Your task to perform on an android device: Open internet settings Image 0: 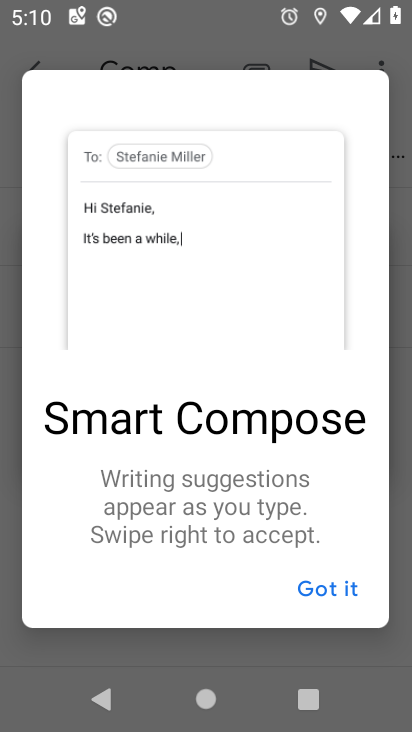
Step 0: press home button
Your task to perform on an android device: Open internet settings Image 1: 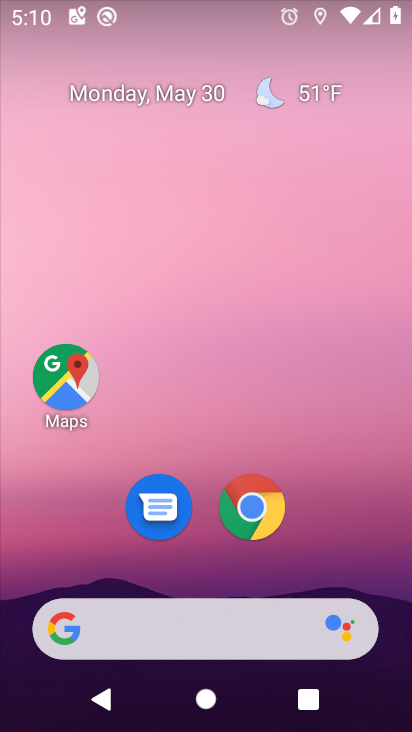
Step 1: drag from (399, 514) to (363, 191)
Your task to perform on an android device: Open internet settings Image 2: 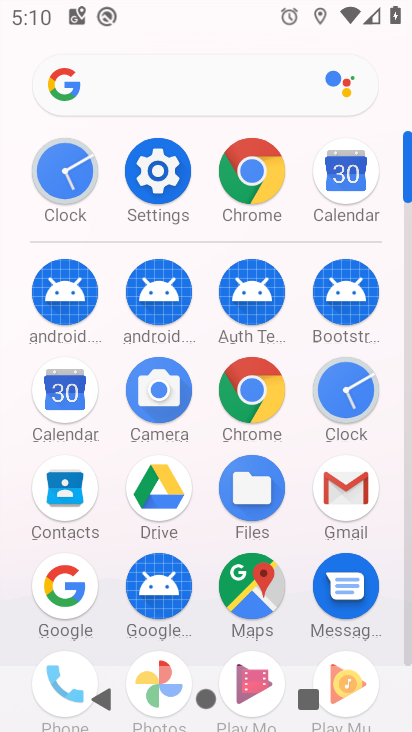
Step 2: click (172, 174)
Your task to perform on an android device: Open internet settings Image 3: 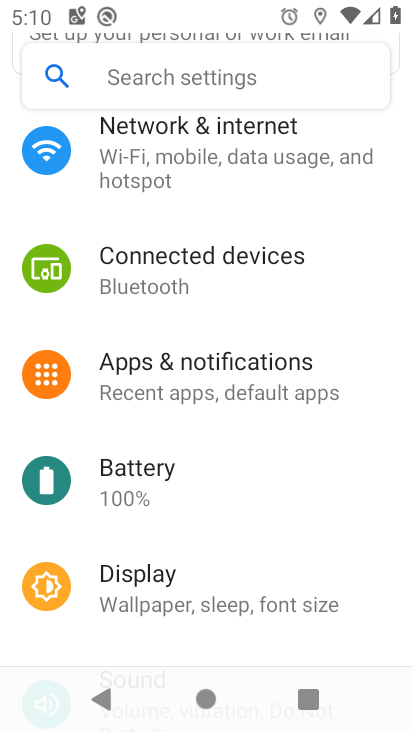
Step 3: drag from (172, 174) to (158, 708)
Your task to perform on an android device: Open internet settings Image 4: 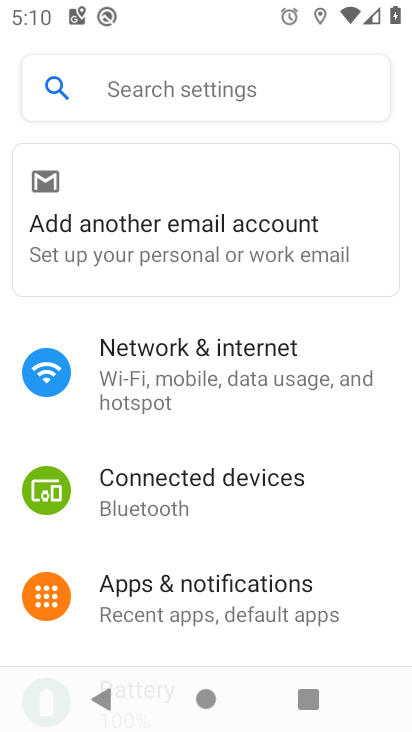
Step 4: click (192, 347)
Your task to perform on an android device: Open internet settings Image 5: 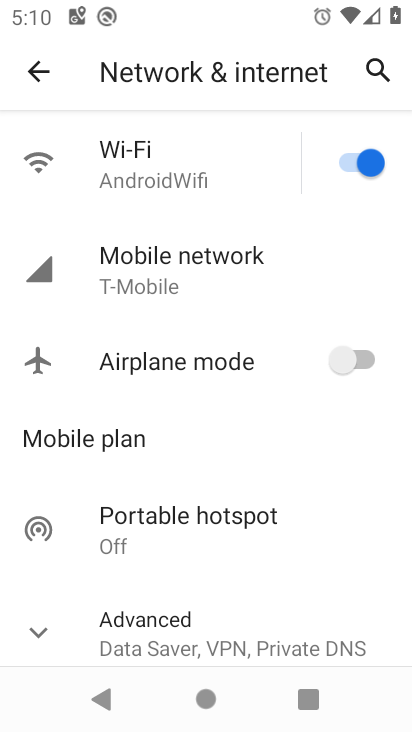
Step 5: task complete